Your task to perform on an android device: turn off location Image 0: 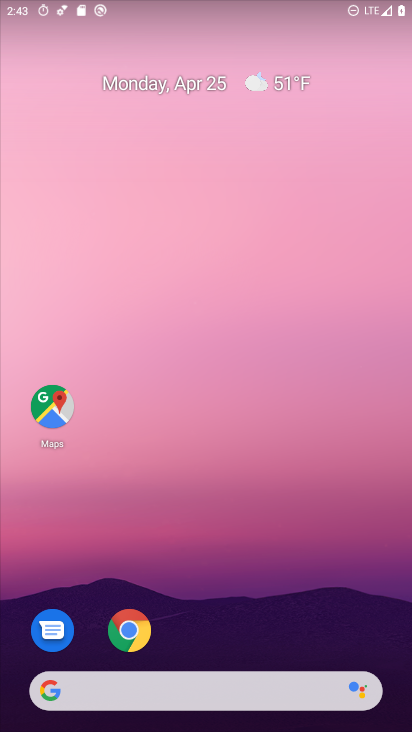
Step 0: drag from (196, 375) to (202, 83)
Your task to perform on an android device: turn off location Image 1: 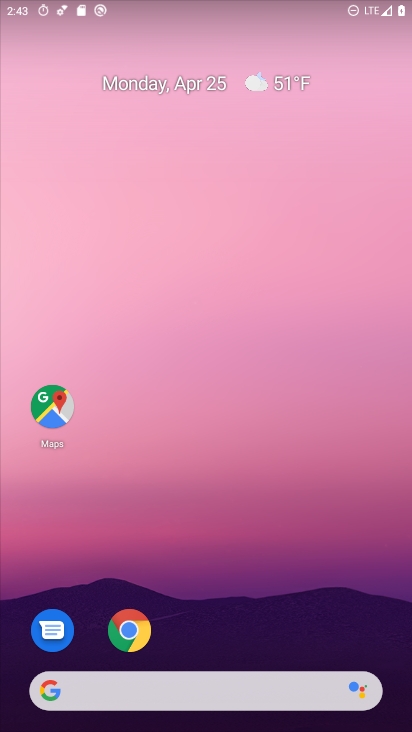
Step 1: drag from (205, 578) to (264, 131)
Your task to perform on an android device: turn off location Image 2: 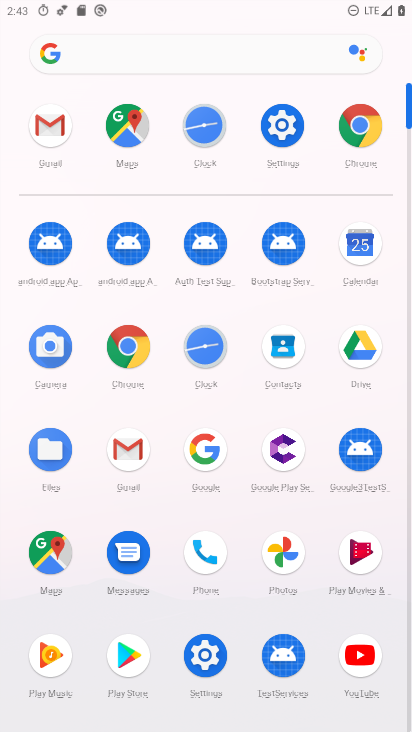
Step 2: click (197, 654)
Your task to perform on an android device: turn off location Image 3: 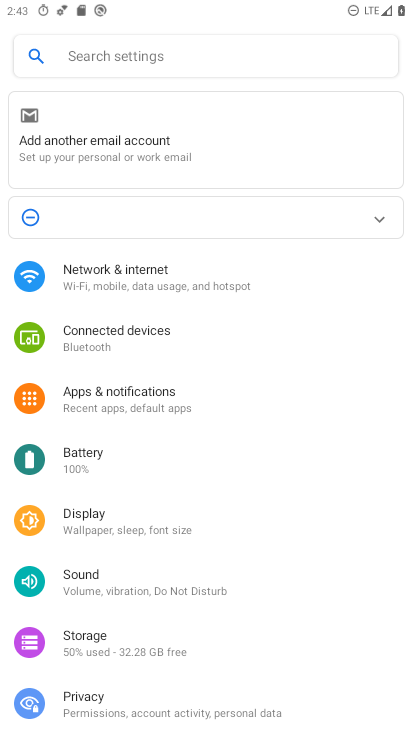
Step 3: drag from (135, 589) to (272, 167)
Your task to perform on an android device: turn off location Image 4: 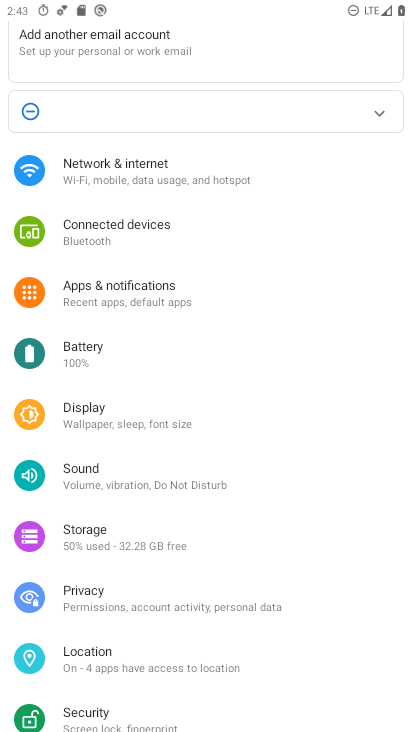
Step 4: drag from (189, 577) to (229, 272)
Your task to perform on an android device: turn off location Image 5: 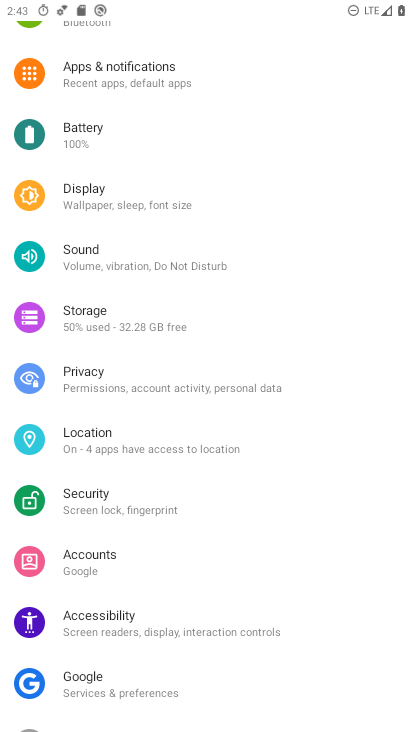
Step 5: click (115, 424)
Your task to perform on an android device: turn off location Image 6: 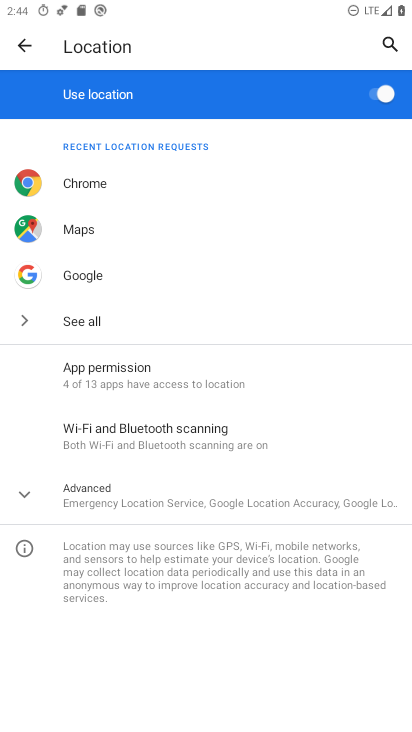
Step 6: click (378, 95)
Your task to perform on an android device: turn off location Image 7: 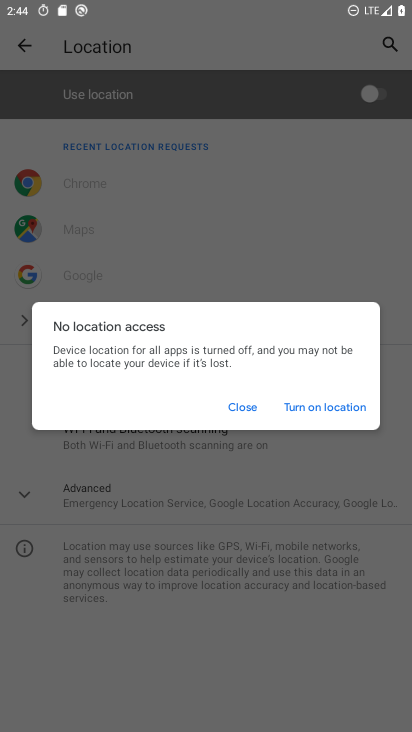
Step 7: task complete